Your task to perform on an android device: clear history in the chrome app Image 0: 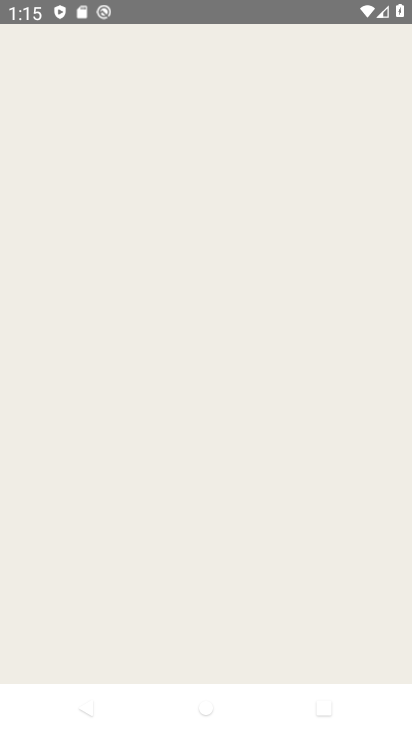
Step 0: press home button
Your task to perform on an android device: clear history in the chrome app Image 1: 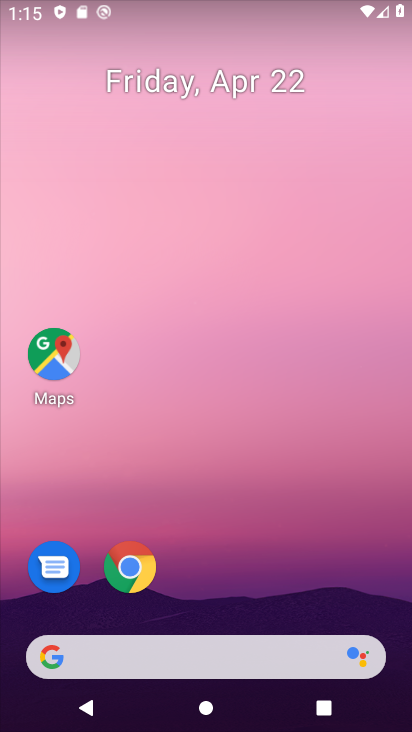
Step 1: click (127, 561)
Your task to perform on an android device: clear history in the chrome app Image 2: 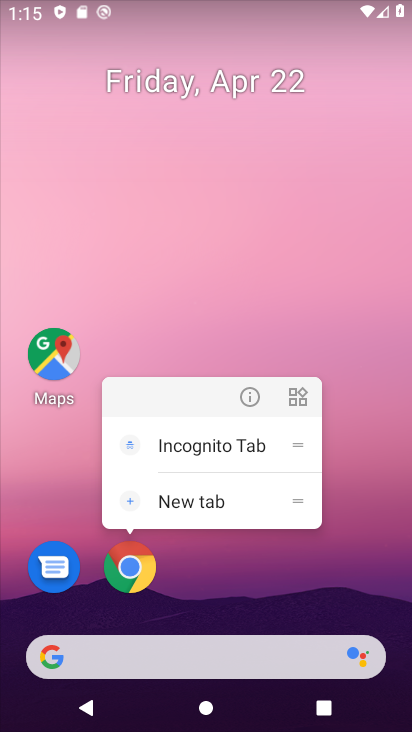
Step 2: click (125, 561)
Your task to perform on an android device: clear history in the chrome app Image 3: 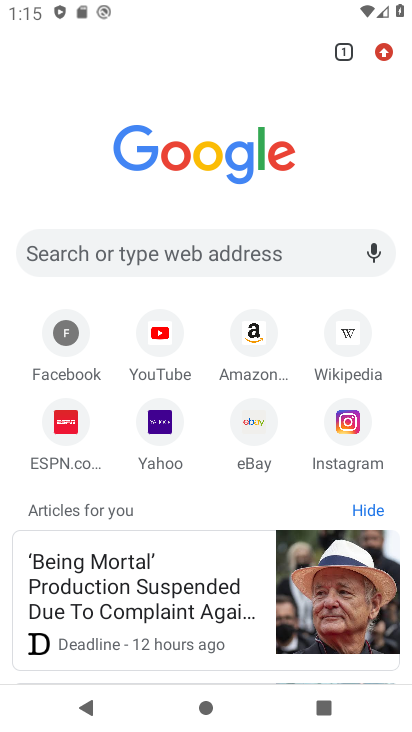
Step 3: click (390, 57)
Your task to perform on an android device: clear history in the chrome app Image 4: 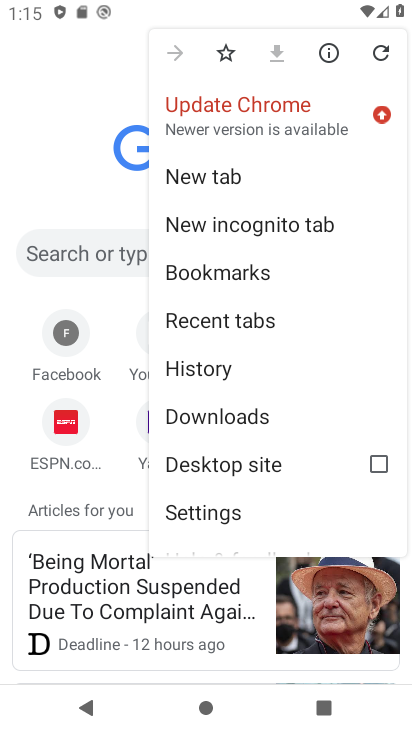
Step 4: click (232, 362)
Your task to perform on an android device: clear history in the chrome app Image 5: 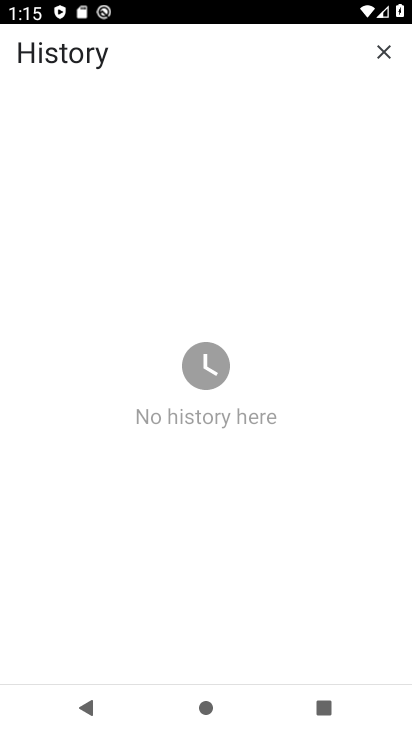
Step 5: task complete